Your task to perform on an android device: Search for Italian restaurants on Maps Image 0: 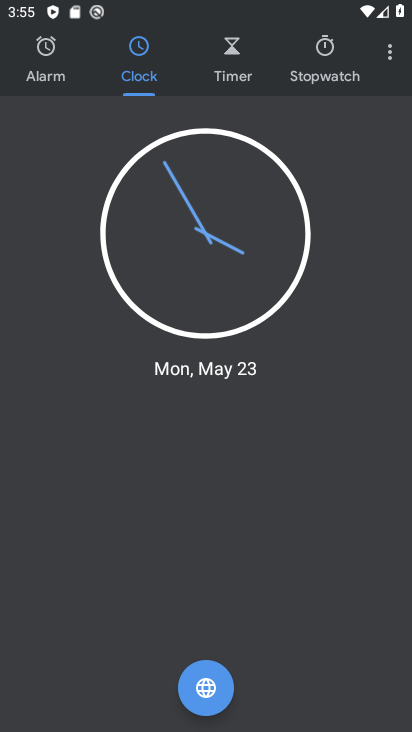
Step 0: press home button
Your task to perform on an android device: Search for Italian restaurants on Maps Image 1: 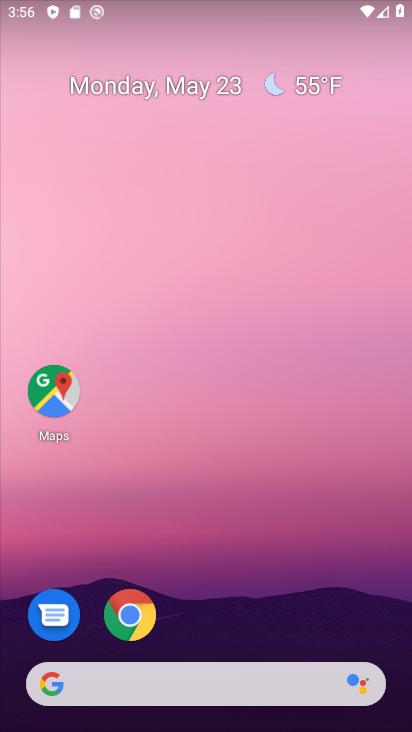
Step 1: drag from (365, 635) to (357, 145)
Your task to perform on an android device: Search for Italian restaurants on Maps Image 2: 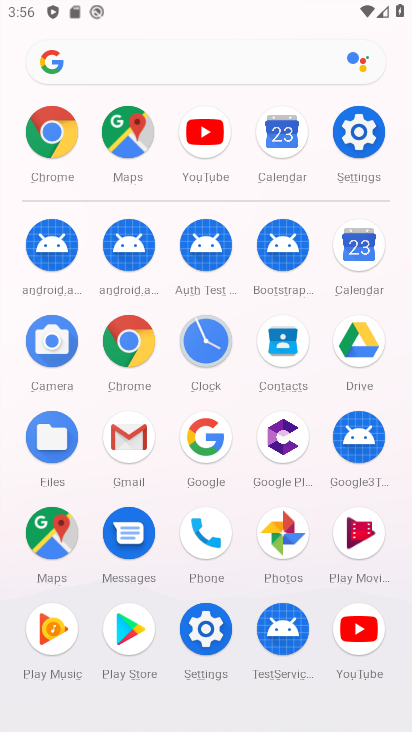
Step 2: click (62, 546)
Your task to perform on an android device: Search for Italian restaurants on Maps Image 3: 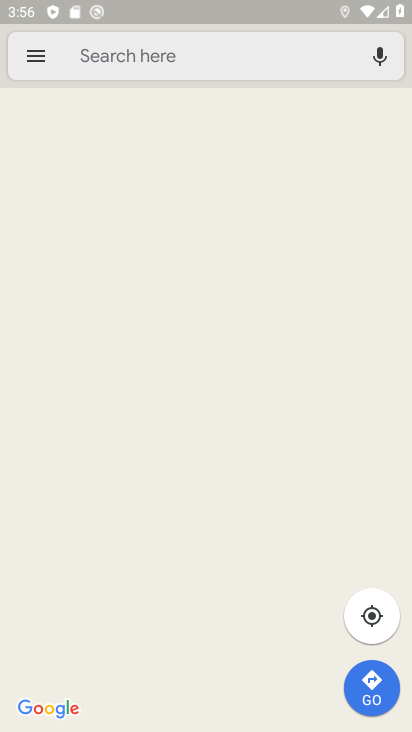
Step 3: click (135, 47)
Your task to perform on an android device: Search for Italian restaurants on Maps Image 4: 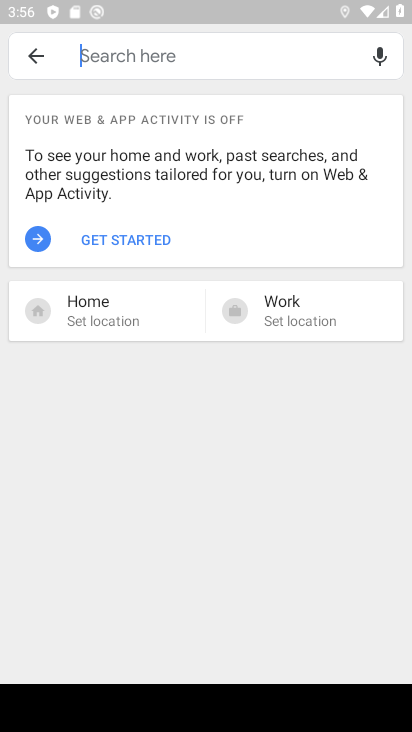
Step 4: type "italian restaurants"
Your task to perform on an android device: Search for Italian restaurants on Maps Image 5: 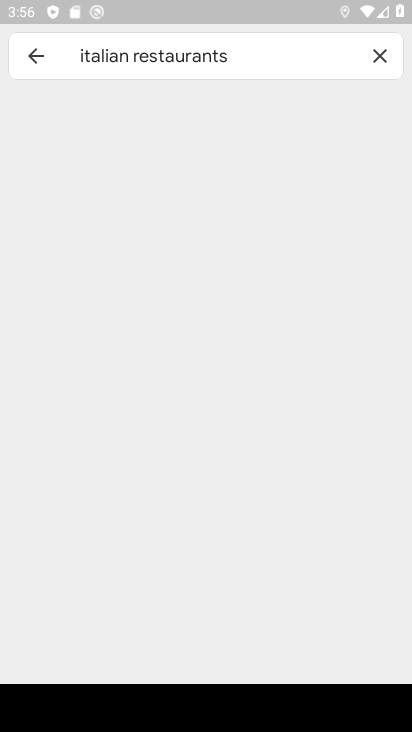
Step 5: task complete